Your task to perform on an android device: manage bookmarks in the chrome app Image 0: 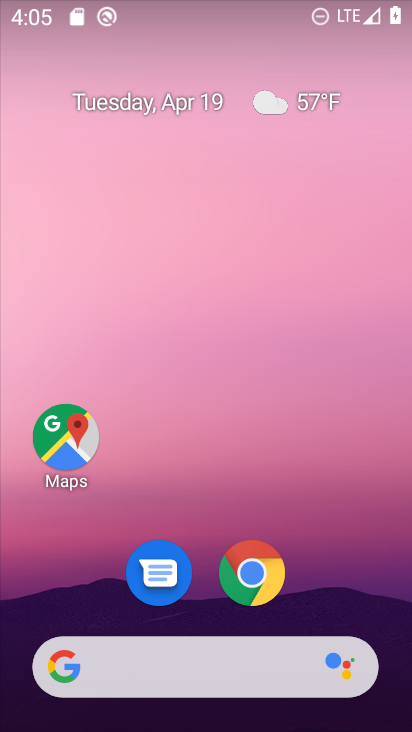
Step 0: click (253, 574)
Your task to perform on an android device: manage bookmarks in the chrome app Image 1: 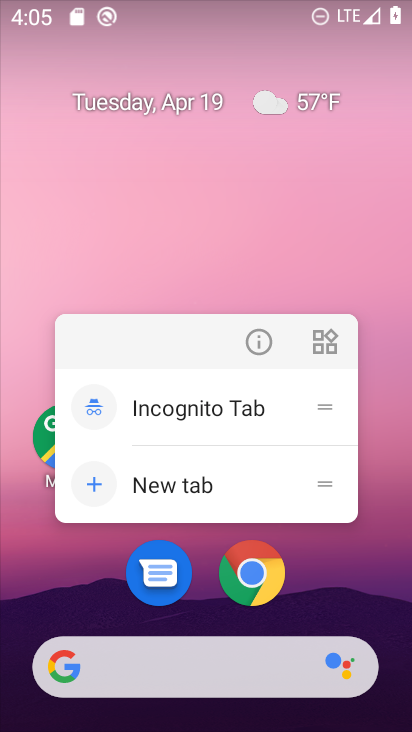
Step 1: click (256, 568)
Your task to perform on an android device: manage bookmarks in the chrome app Image 2: 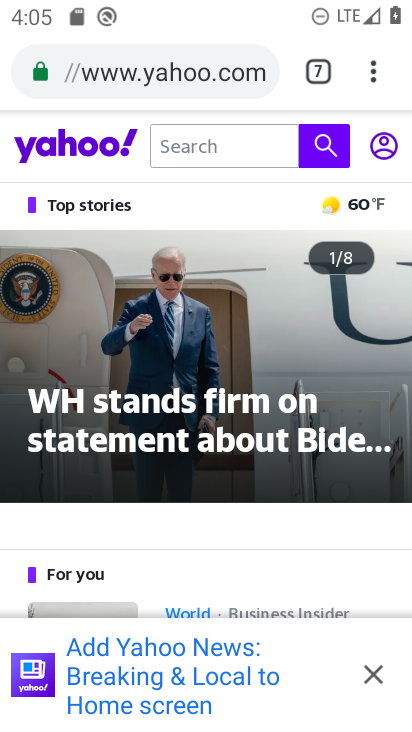
Step 2: click (368, 64)
Your task to perform on an android device: manage bookmarks in the chrome app Image 3: 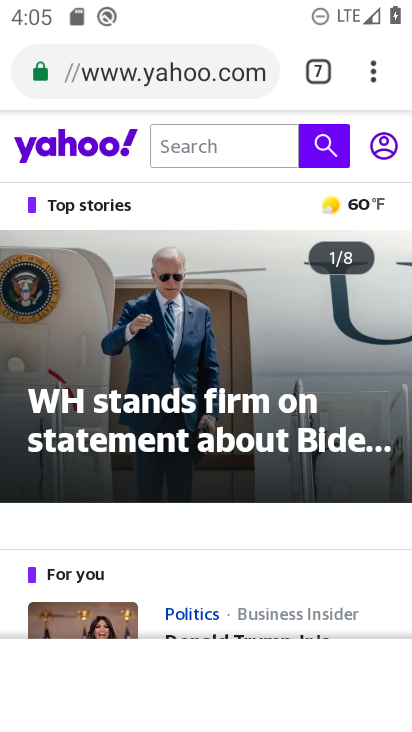
Step 3: click (371, 62)
Your task to perform on an android device: manage bookmarks in the chrome app Image 4: 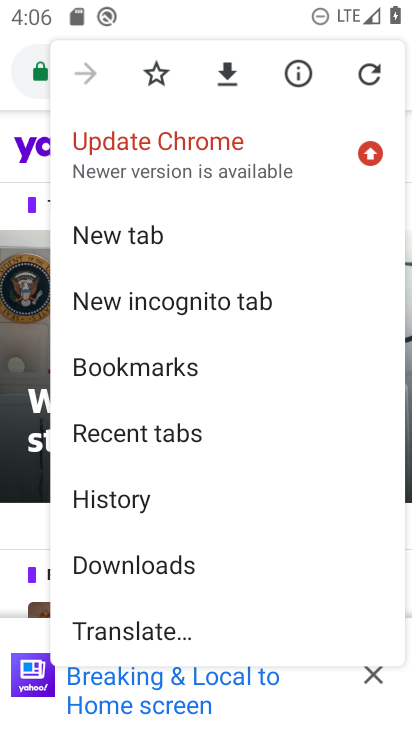
Step 4: click (150, 369)
Your task to perform on an android device: manage bookmarks in the chrome app Image 5: 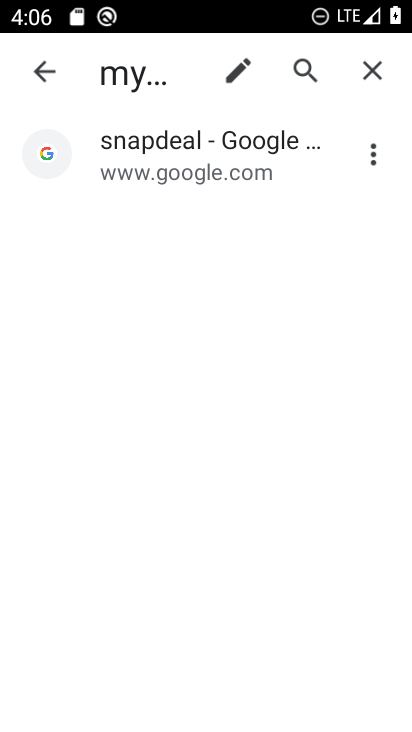
Step 5: click (375, 152)
Your task to perform on an android device: manage bookmarks in the chrome app Image 6: 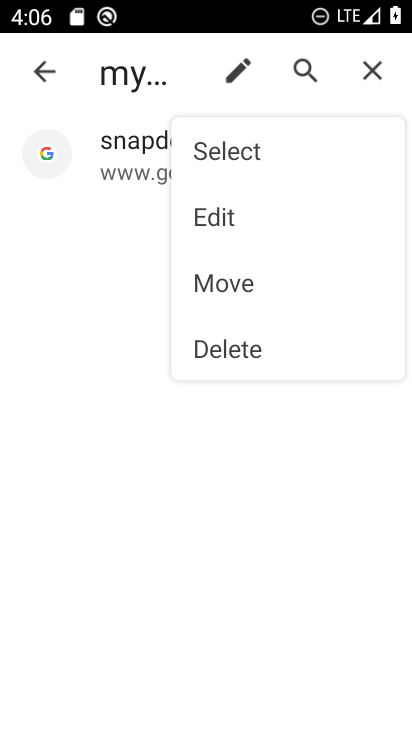
Step 6: click (239, 279)
Your task to perform on an android device: manage bookmarks in the chrome app Image 7: 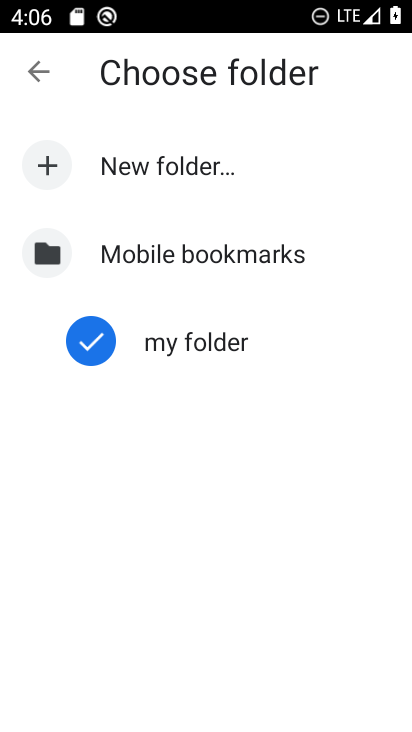
Step 7: click (141, 167)
Your task to perform on an android device: manage bookmarks in the chrome app Image 8: 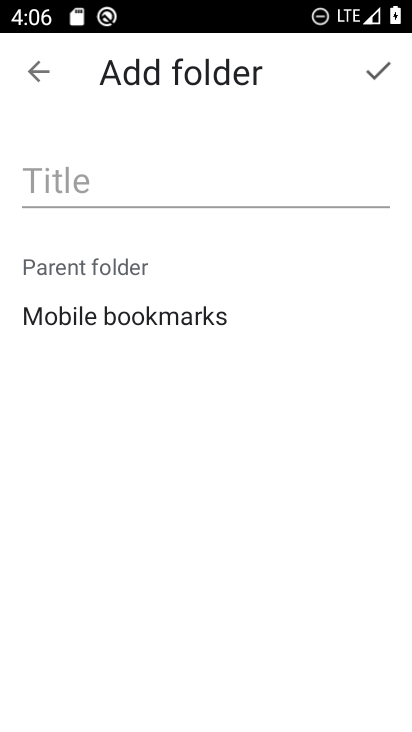
Step 8: click (50, 72)
Your task to perform on an android device: manage bookmarks in the chrome app Image 9: 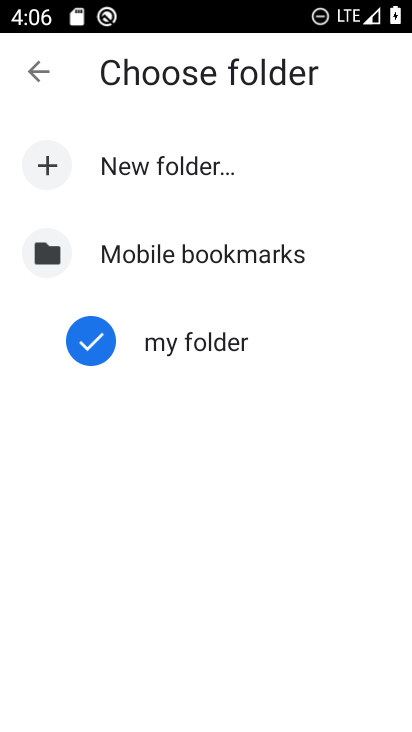
Step 9: click (187, 336)
Your task to perform on an android device: manage bookmarks in the chrome app Image 10: 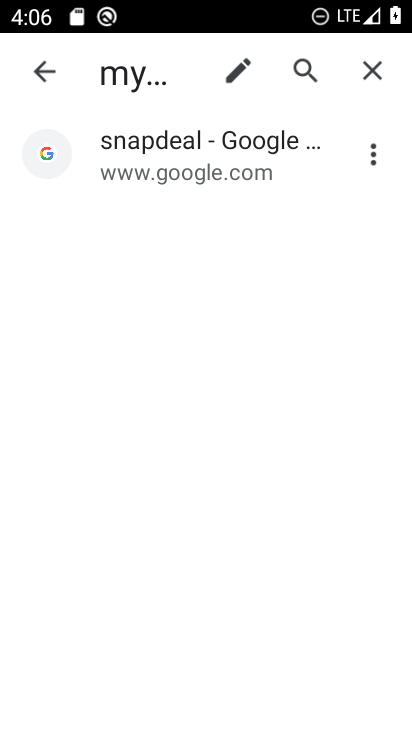
Step 10: click (373, 155)
Your task to perform on an android device: manage bookmarks in the chrome app Image 11: 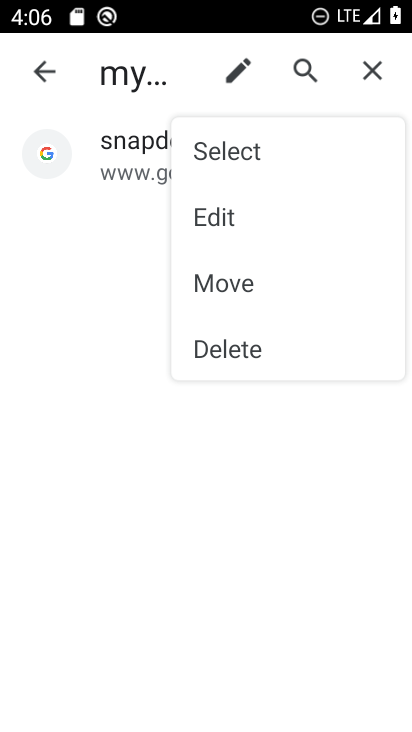
Step 11: click (211, 349)
Your task to perform on an android device: manage bookmarks in the chrome app Image 12: 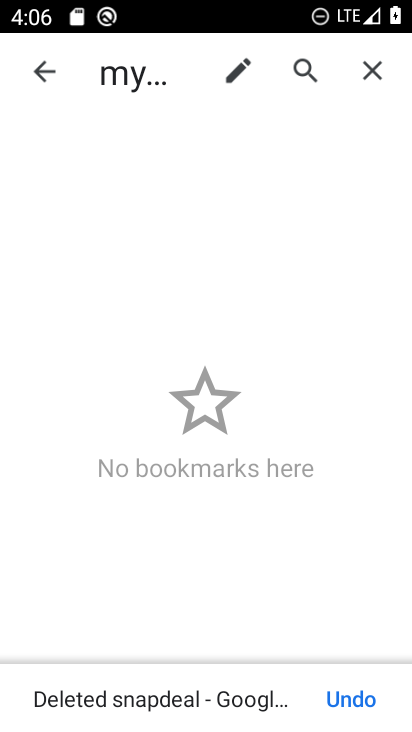
Step 12: task complete